Your task to perform on an android device: Open the web browser Image 0: 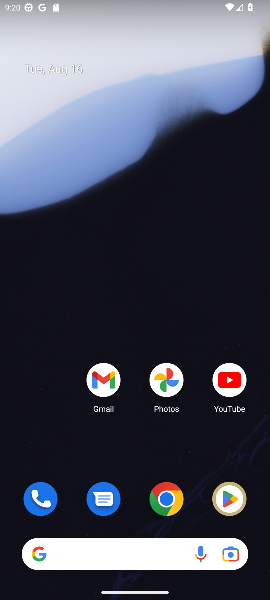
Step 0: press home button
Your task to perform on an android device: Open the web browser Image 1: 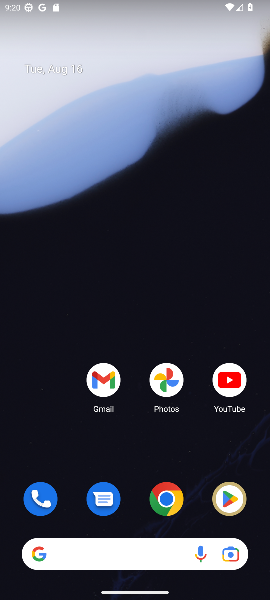
Step 1: click (157, 509)
Your task to perform on an android device: Open the web browser Image 2: 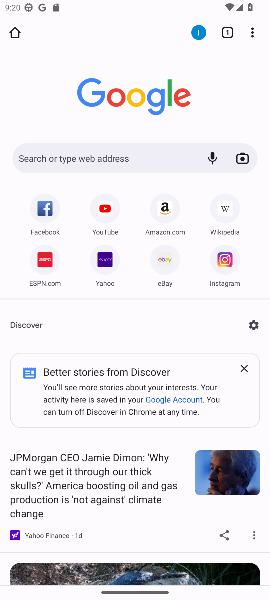
Step 2: click (114, 153)
Your task to perform on an android device: Open the web browser Image 3: 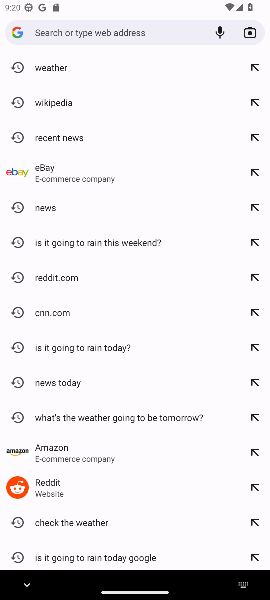
Step 3: type "web browser"
Your task to perform on an android device: Open the web browser Image 4: 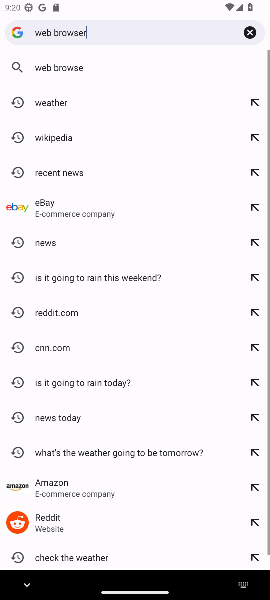
Step 4: type ""
Your task to perform on an android device: Open the web browser Image 5: 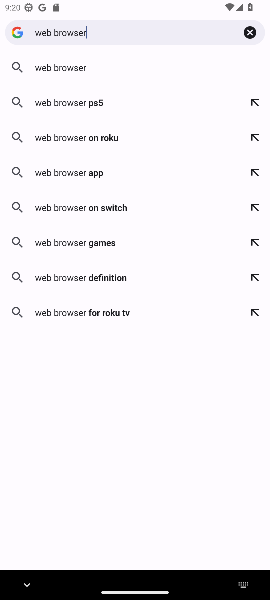
Step 5: click (68, 65)
Your task to perform on an android device: Open the web browser Image 6: 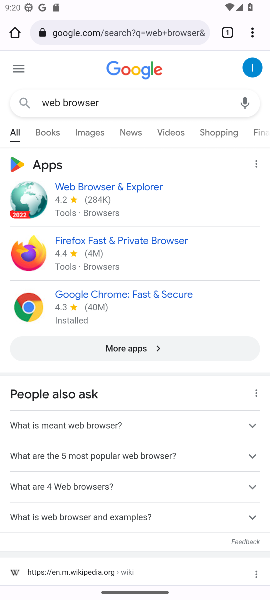
Step 6: task complete